Your task to perform on an android device: create a new album in the google photos Image 0: 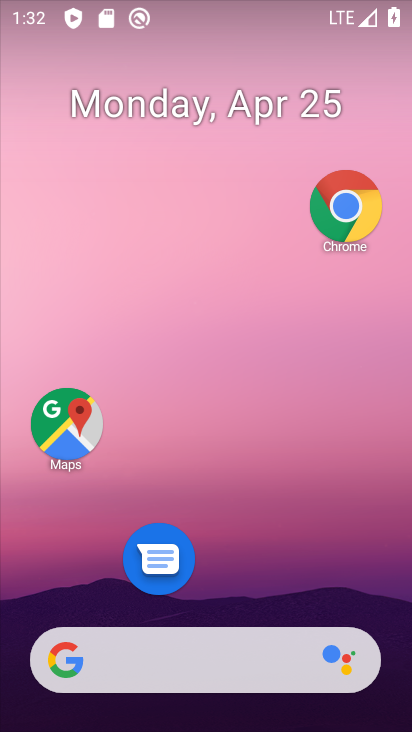
Step 0: drag from (237, 565) to (298, 42)
Your task to perform on an android device: create a new album in the google photos Image 1: 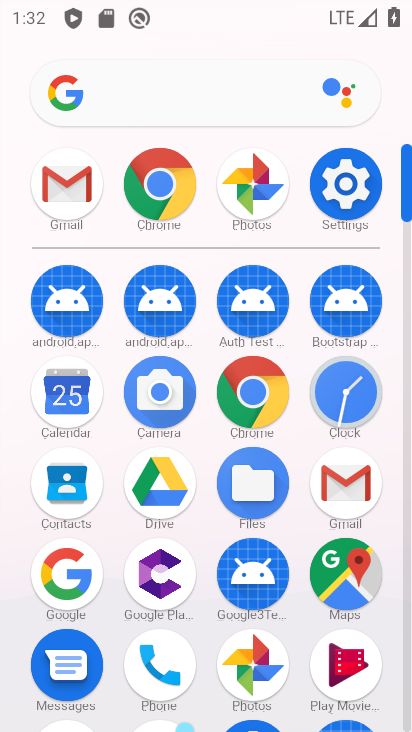
Step 1: click (258, 202)
Your task to perform on an android device: create a new album in the google photos Image 2: 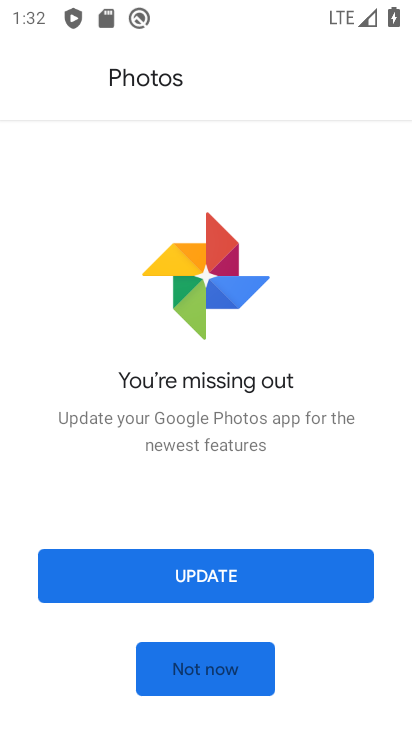
Step 2: click (231, 671)
Your task to perform on an android device: create a new album in the google photos Image 3: 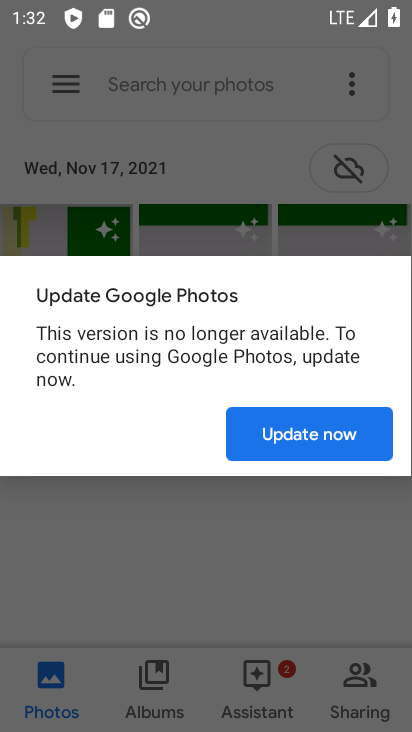
Step 3: click (305, 441)
Your task to perform on an android device: create a new album in the google photos Image 4: 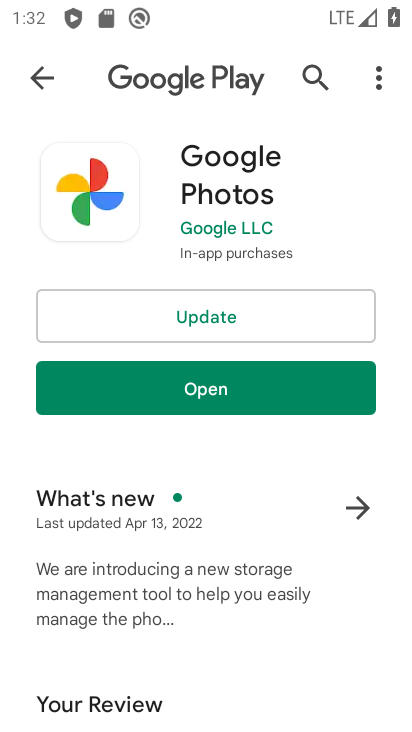
Step 4: click (197, 394)
Your task to perform on an android device: create a new album in the google photos Image 5: 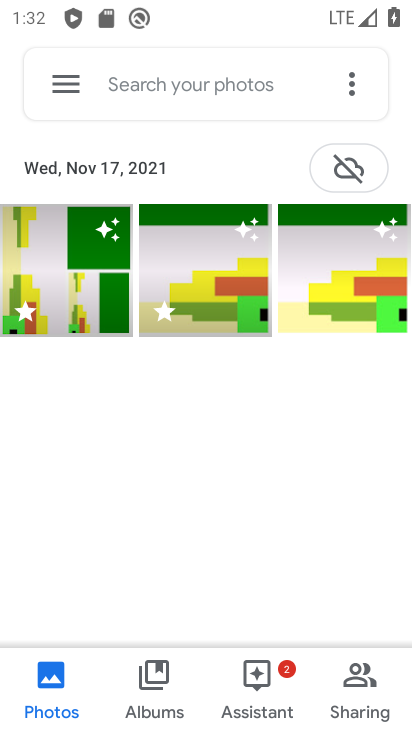
Step 5: click (358, 85)
Your task to perform on an android device: create a new album in the google photos Image 6: 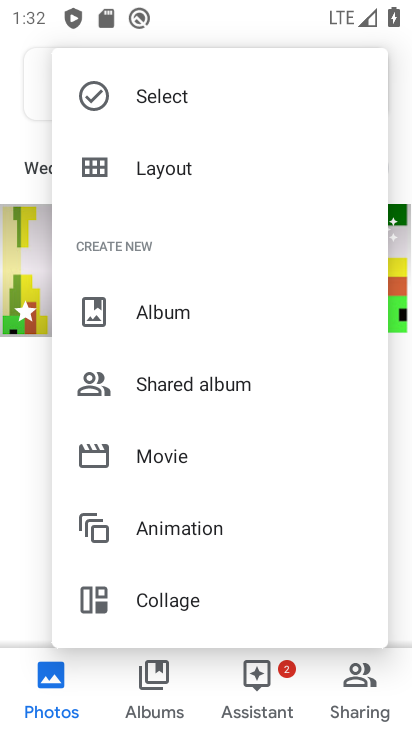
Step 6: click (164, 319)
Your task to perform on an android device: create a new album in the google photos Image 7: 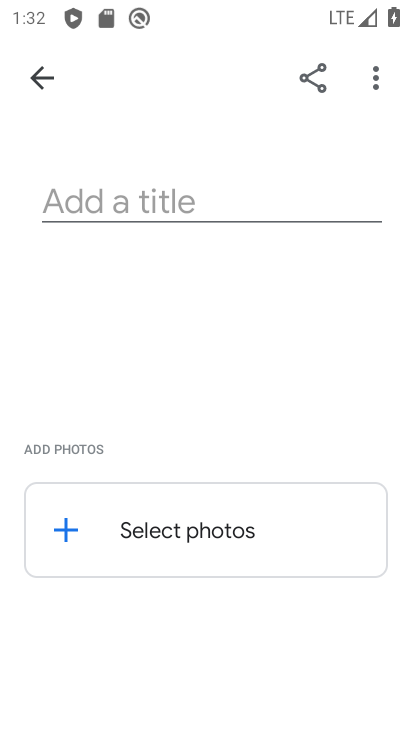
Step 7: click (142, 195)
Your task to perform on an android device: create a new album in the google photos Image 8: 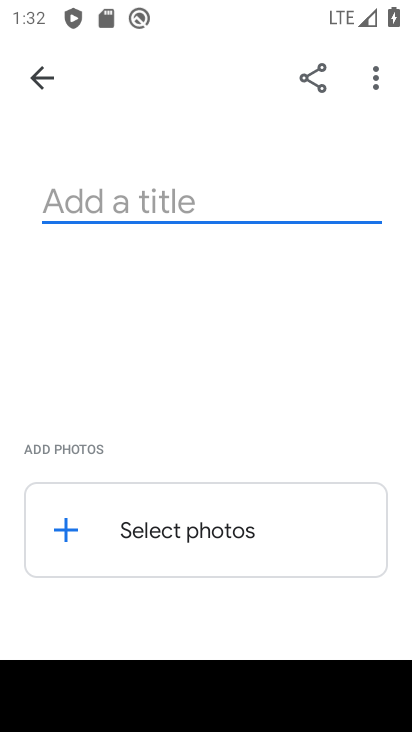
Step 8: type "fbgfbd"
Your task to perform on an android device: create a new album in the google photos Image 9: 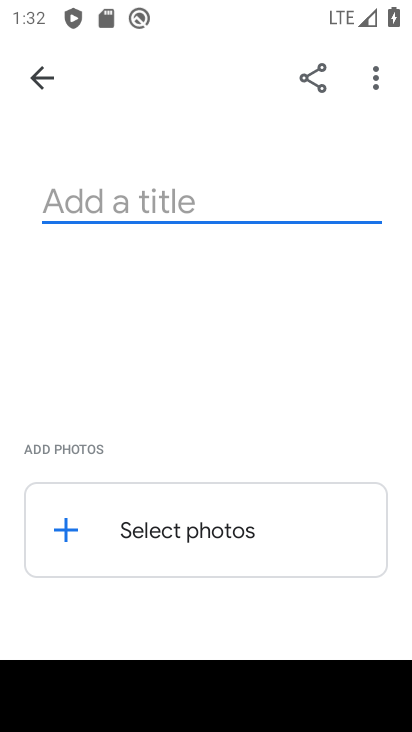
Step 9: click (180, 538)
Your task to perform on an android device: create a new album in the google photos Image 10: 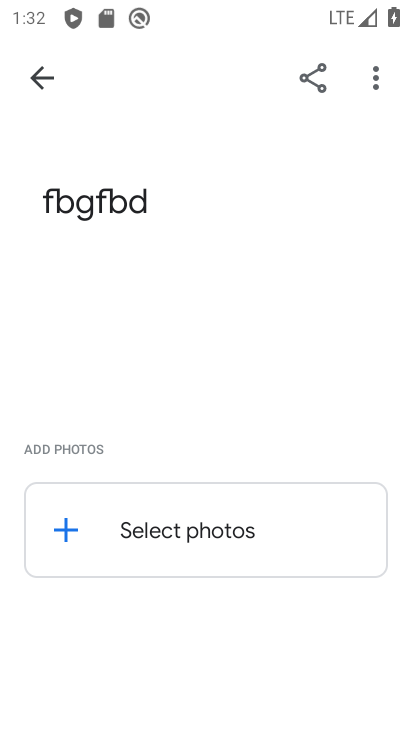
Step 10: click (185, 538)
Your task to perform on an android device: create a new album in the google photos Image 11: 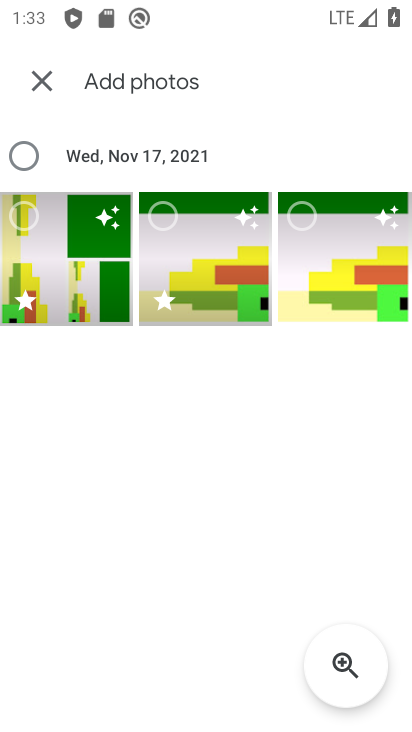
Step 11: click (26, 156)
Your task to perform on an android device: create a new album in the google photos Image 12: 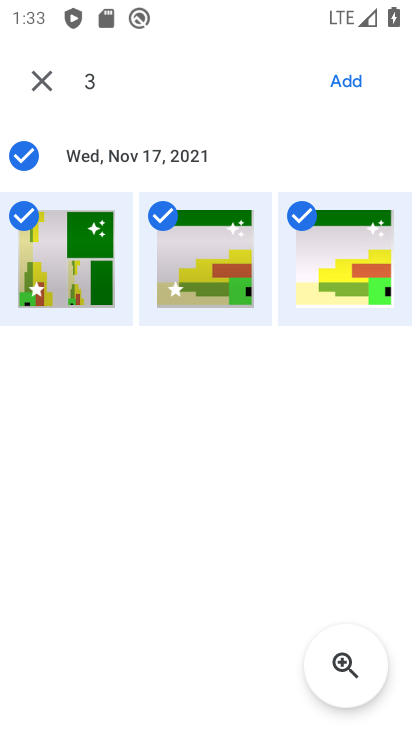
Step 12: click (354, 78)
Your task to perform on an android device: create a new album in the google photos Image 13: 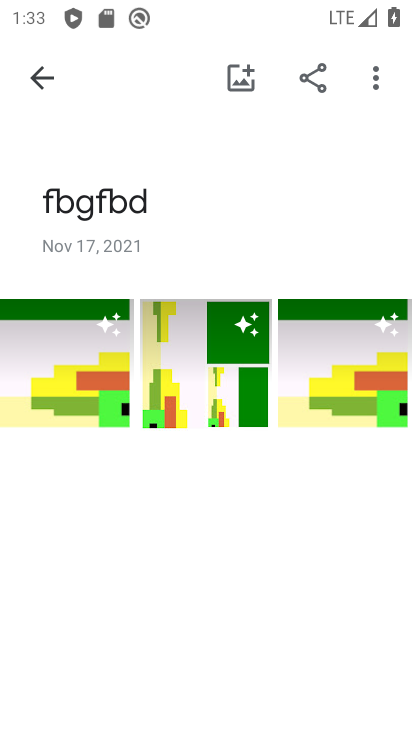
Step 13: task complete